Your task to perform on an android device: clear all cookies in the chrome app Image 0: 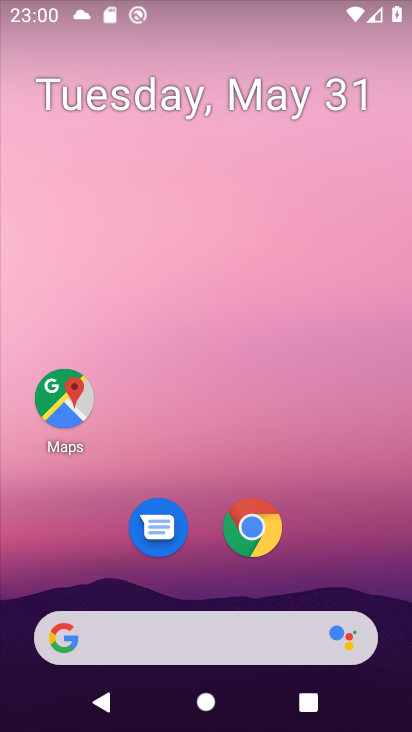
Step 0: click (248, 530)
Your task to perform on an android device: clear all cookies in the chrome app Image 1: 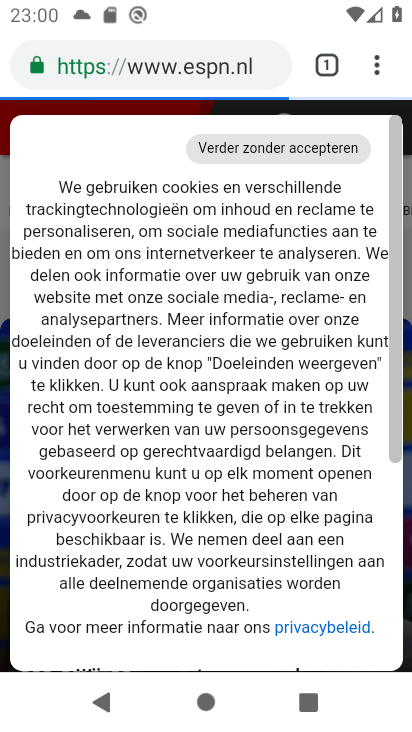
Step 1: click (383, 65)
Your task to perform on an android device: clear all cookies in the chrome app Image 2: 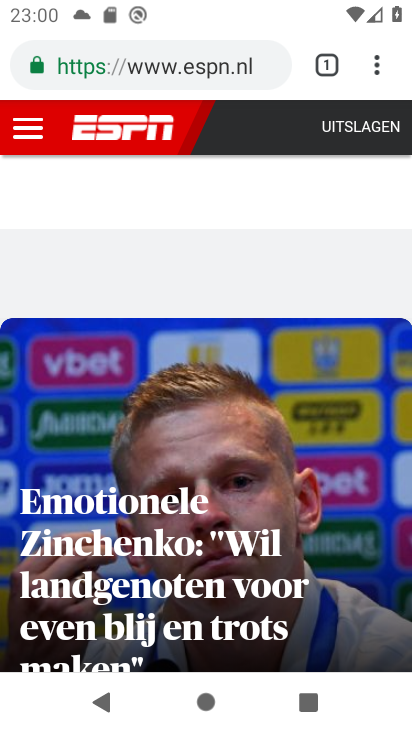
Step 2: click (381, 62)
Your task to perform on an android device: clear all cookies in the chrome app Image 3: 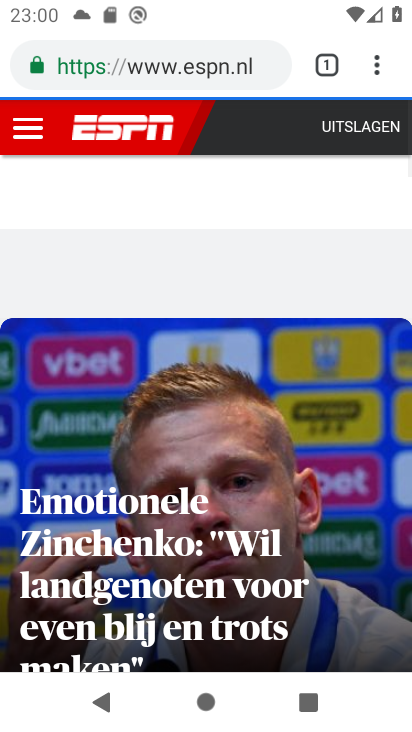
Step 3: click (371, 66)
Your task to perform on an android device: clear all cookies in the chrome app Image 4: 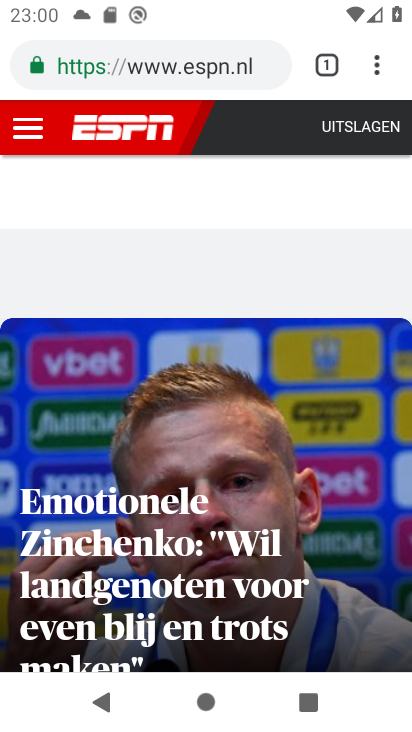
Step 4: click (376, 67)
Your task to perform on an android device: clear all cookies in the chrome app Image 5: 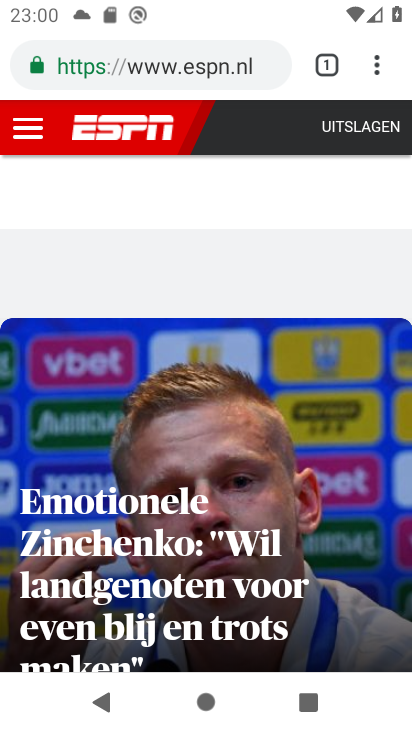
Step 5: click (381, 60)
Your task to perform on an android device: clear all cookies in the chrome app Image 6: 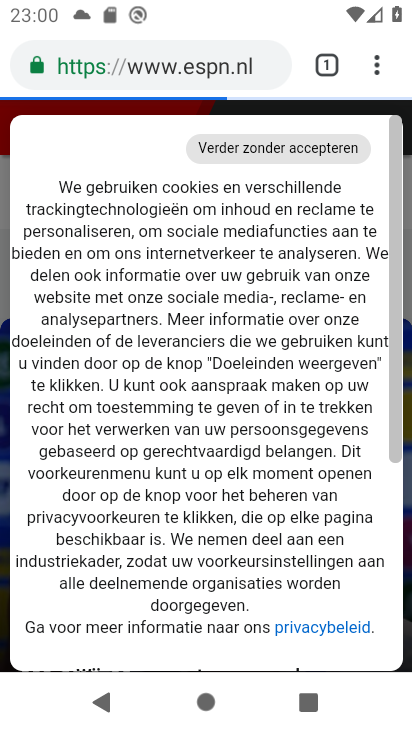
Step 6: click (374, 58)
Your task to perform on an android device: clear all cookies in the chrome app Image 7: 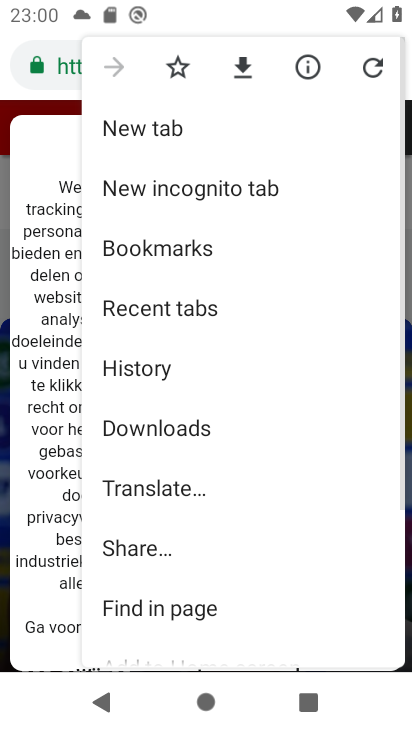
Step 7: click (173, 360)
Your task to perform on an android device: clear all cookies in the chrome app Image 8: 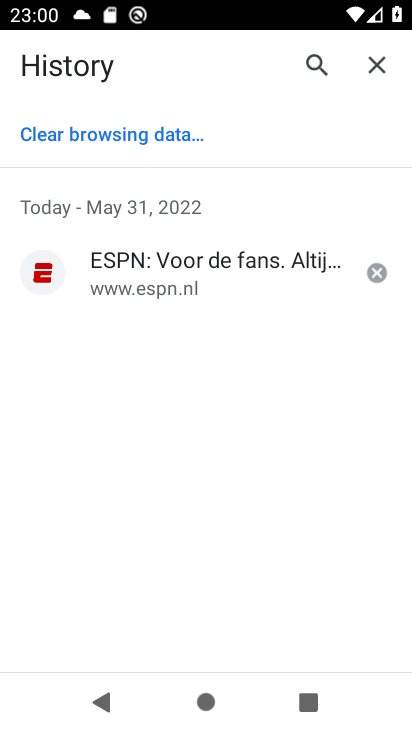
Step 8: click (134, 125)
Your task to perform on an android device: clear all cookies in the chrome app Image 9: 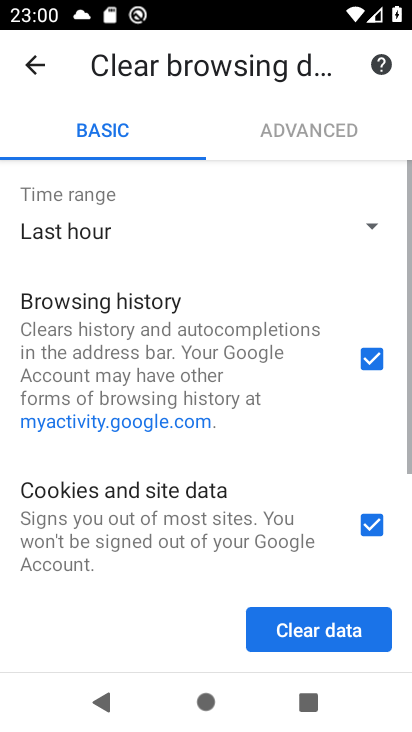
Step 9: click (320, 628)
Your task to perform on an android device: clear all cookies in the chrome app Image 10: 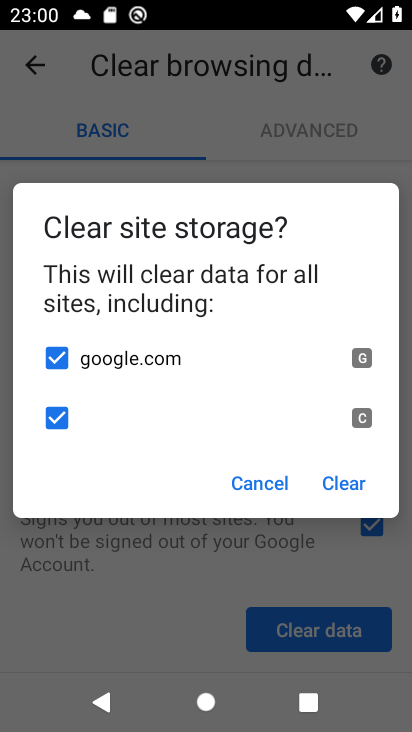
Step 10: click (352, 476)
Your task to perform on an android device: clear all cookies in the chrome app Image 11: 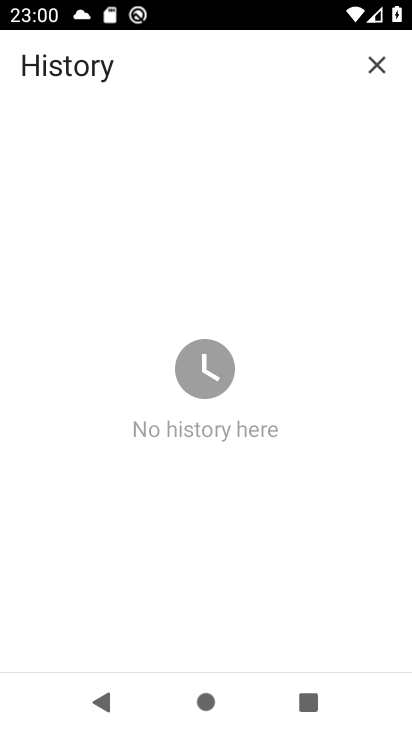
Step 11: task complete